Your task to perform on an android device: Open Google Chrome and click the shortcut for Amazon.com Image 0: 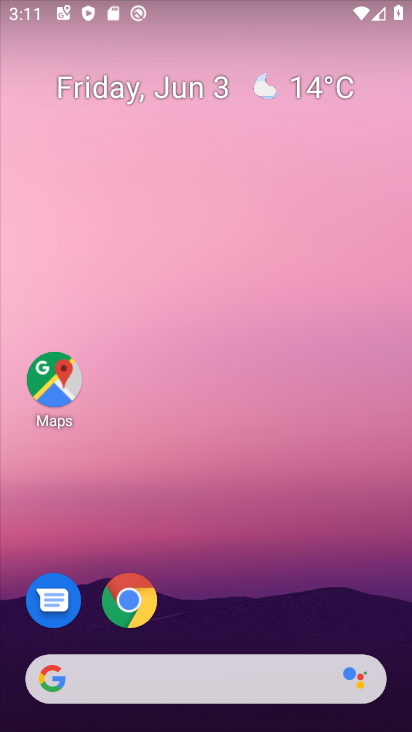
Step 0: click (136, 610)
Your task to perform on an android device: Open Google Chrome and click the shortcut for Amazon.com Image 1: 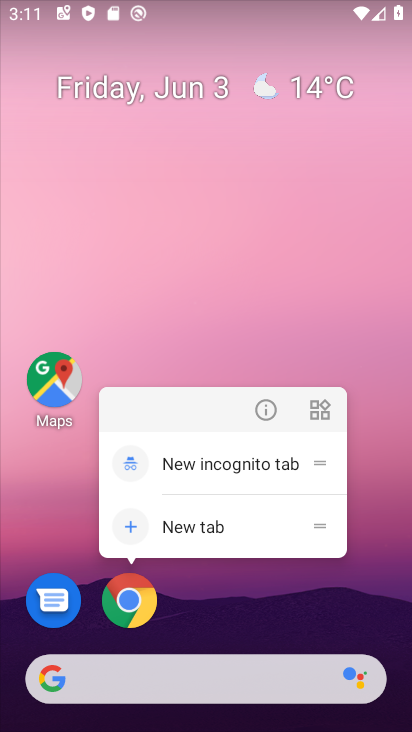
Step 1: click (136, 610)
Your task to perform on an android device: Open Google Chrome and click the shortcut for Amazon.com Image 2: 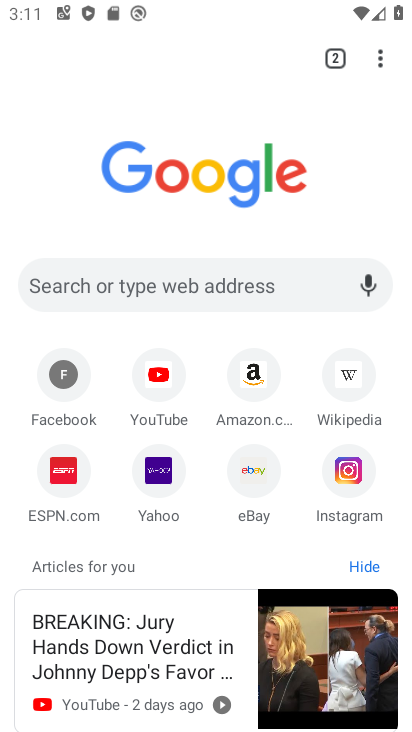
Step 2: click (262, 391)
Your task to perform on an android device: Open Google Chrome and click the shortcut for Amazon.com Image 3: 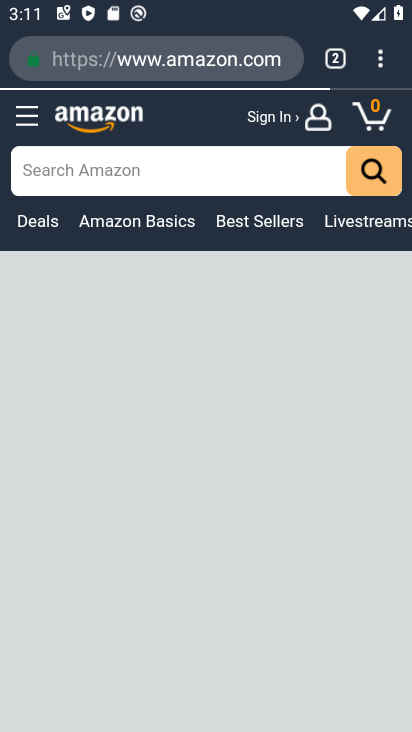
Step 3: task complete